Your task to perform on an android device: clear history in the chrome app Image 0: 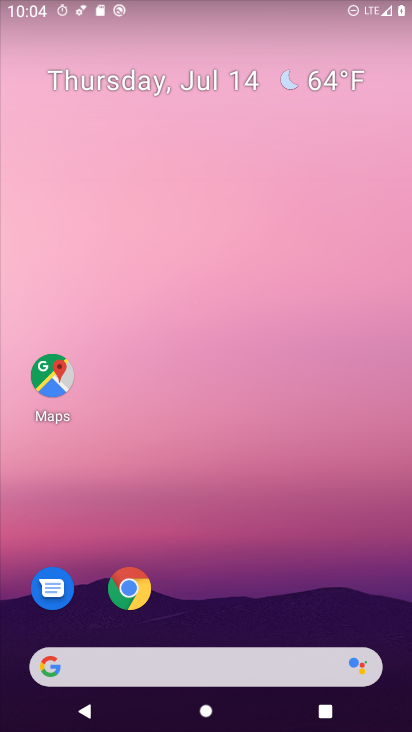
Step 0: drag from (335, 591) to (337, 130)
Your task to perform on an android device: clear history in the chrome app Image 1: 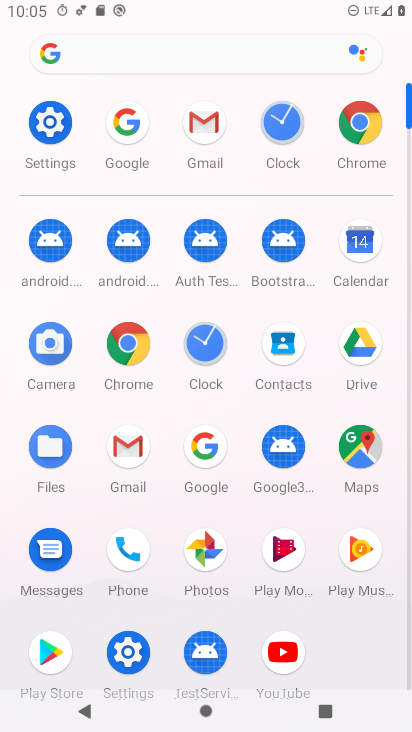
Step 1: click (362, 134)
Your task to perform on an android device: clear history in the chrome app Image 2: 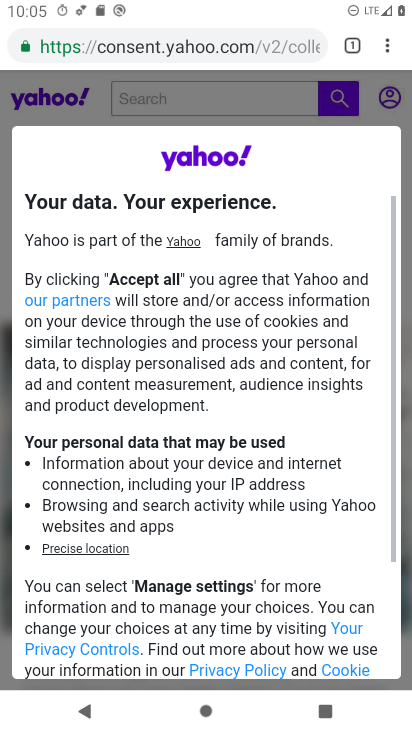
Step 2: click (384, 47)
Your task to perform on an android device: clear history in the chrome app Image 3: 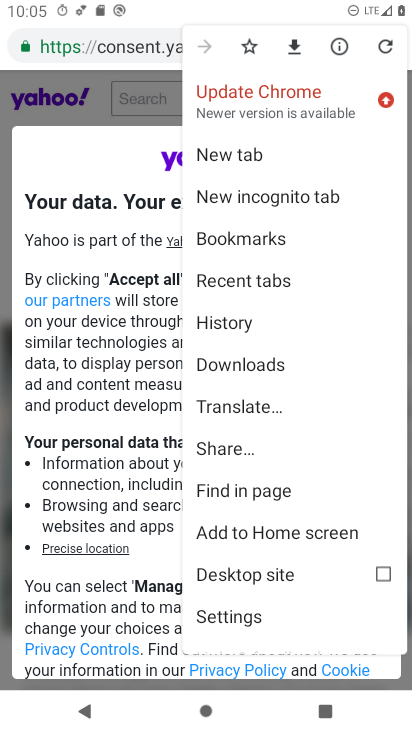
Step 3: click (253, 328)
Your task to perform on an android device: clear history in the chrome app Image 4: 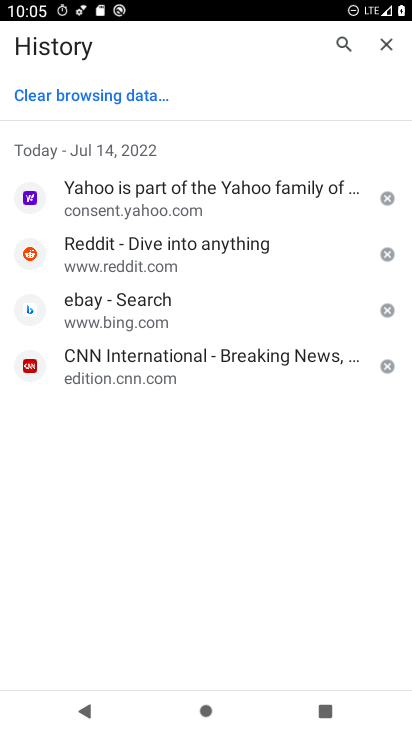
Step 4: click (144, 98)
Your task to perform on an android device: clear history in the chrome app Image 5: 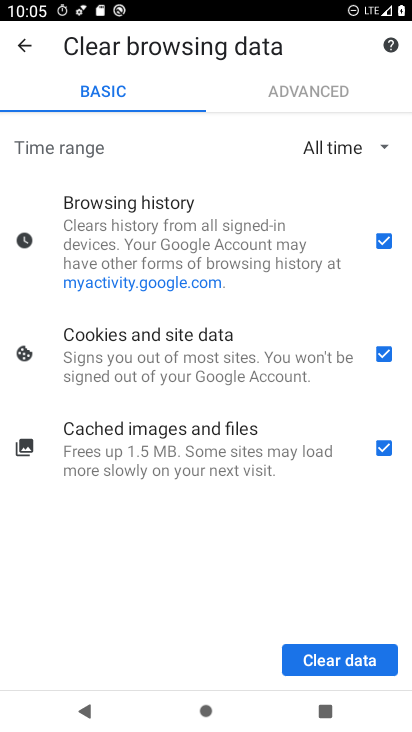
Step 5: click (322, 666)
Your task to perform on an android device: clear history in the chrome app Image 6: 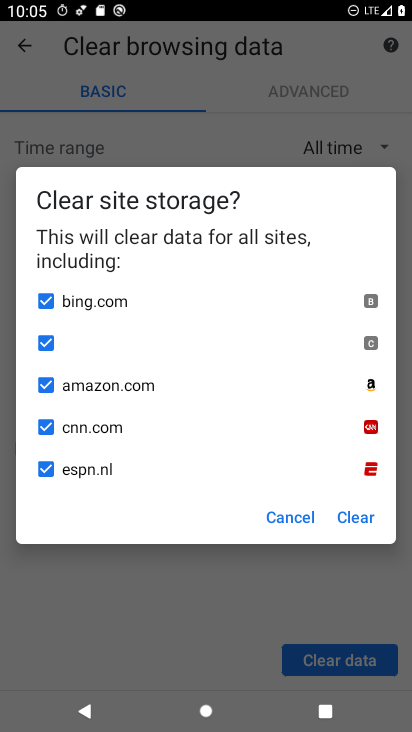
Step 6: click (358, 523)
Your task to perform on an android device: clear history in the chrome app Image 7: 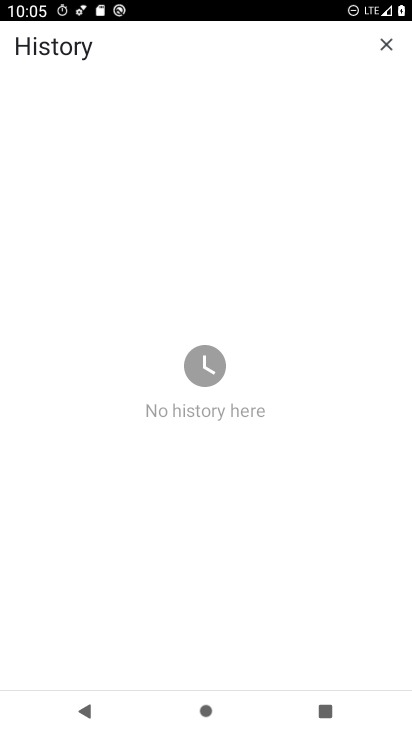
Step 7: task complete